Your task to perform on an android device: See recent photos Image 0: 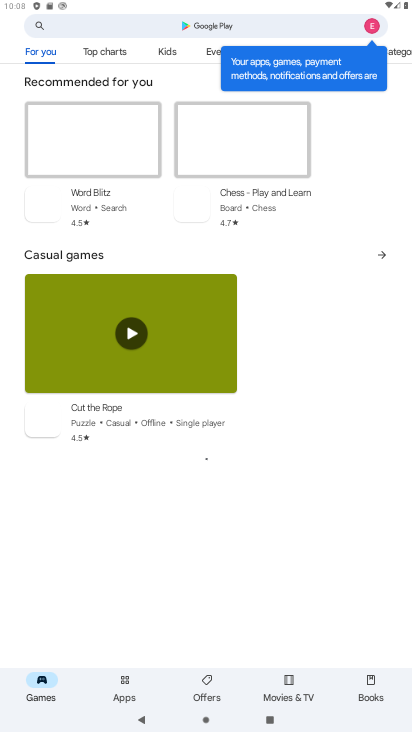
Step 0: press home button
Your task to perform on an android device: See recent photos Image 1: 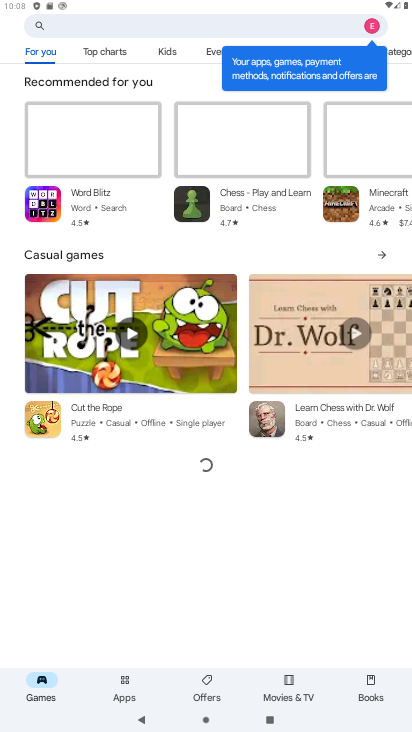
Step 1: press home button
Your task to perform on an android device: See recent photos Image 2: 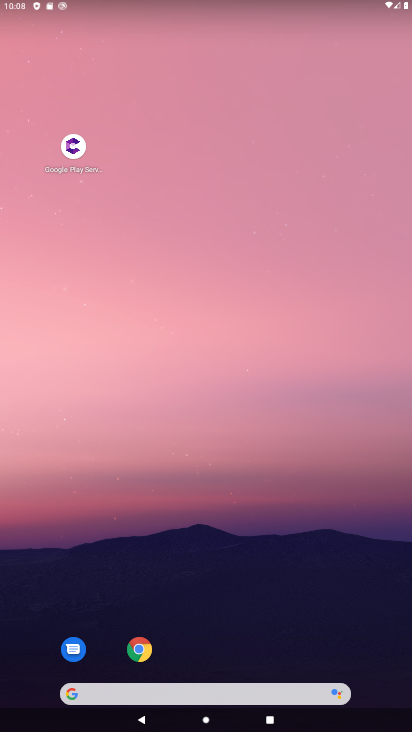
Step 2: drag from (223, 612) to (182, 109)
Your task to perform on an android device: See recent photos Image 3: 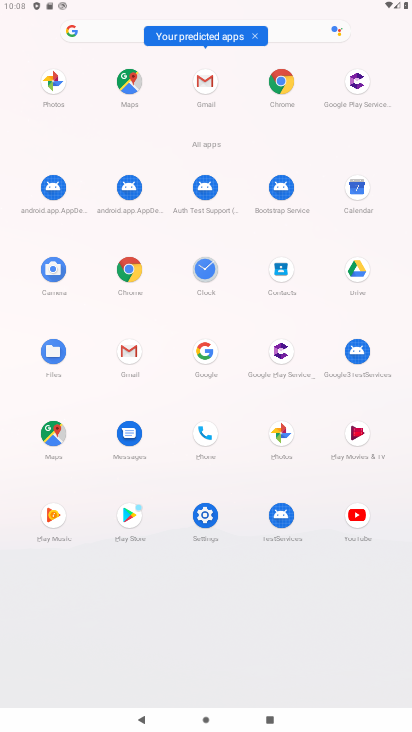
Step 3: click (44, 78)
Your task to perform on an android device: See recent photos Image 4: 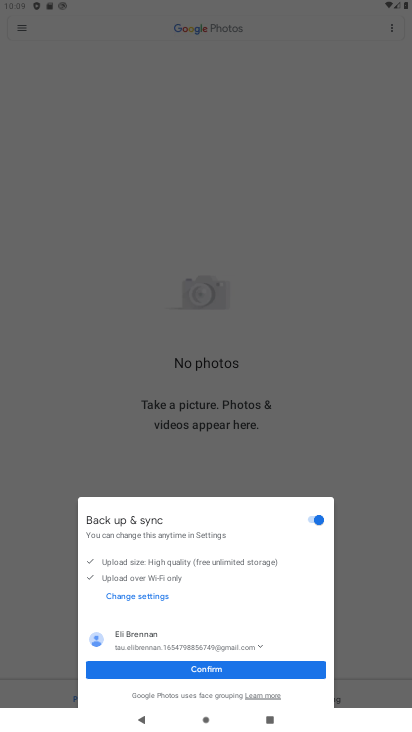
Step 4: click (237, 666)
Your task to perform on an android device: See recent photos Image 5: 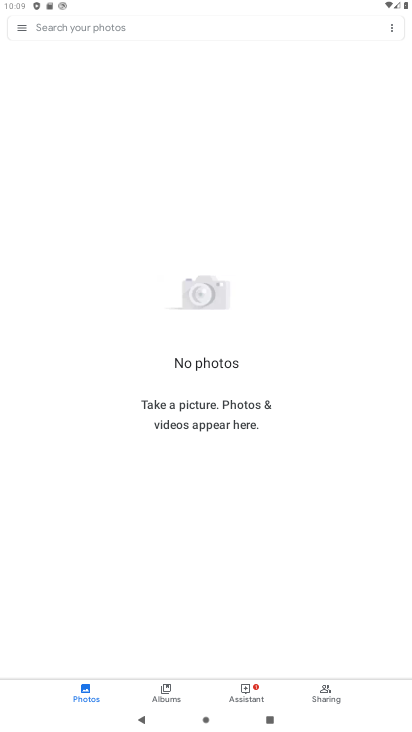
Step 5: task complete